Your task to perform on an android device: open app "Fetch Rewards" (install if not already installed) and enter user name: "Westwood@yahoo.com" and password: "qualifying" Image 0: 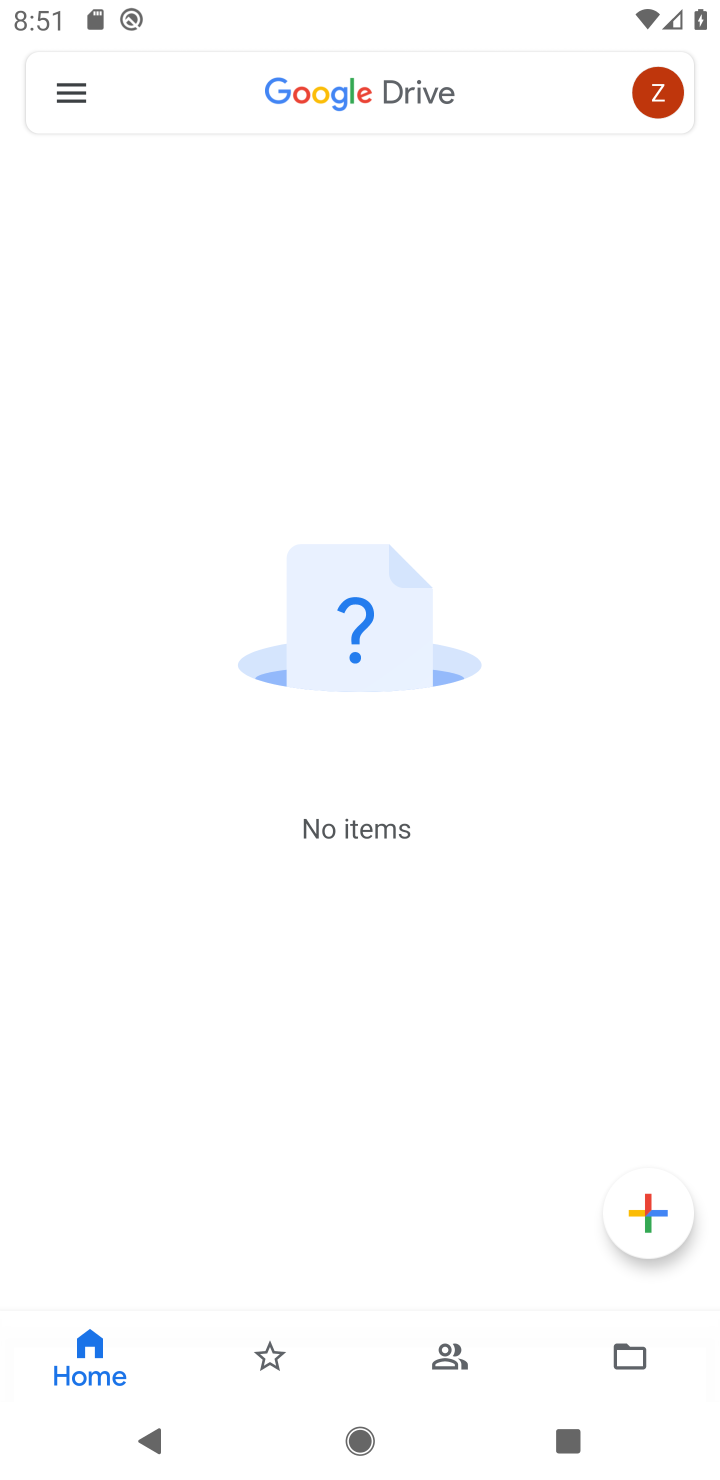
Step 0: press back button
Your task to perform on an android device: open app "Fetch Rewards" (install if not already installed) and enter user name: "Westwood@yahoo.com" and password: "qualifying" Image 1: 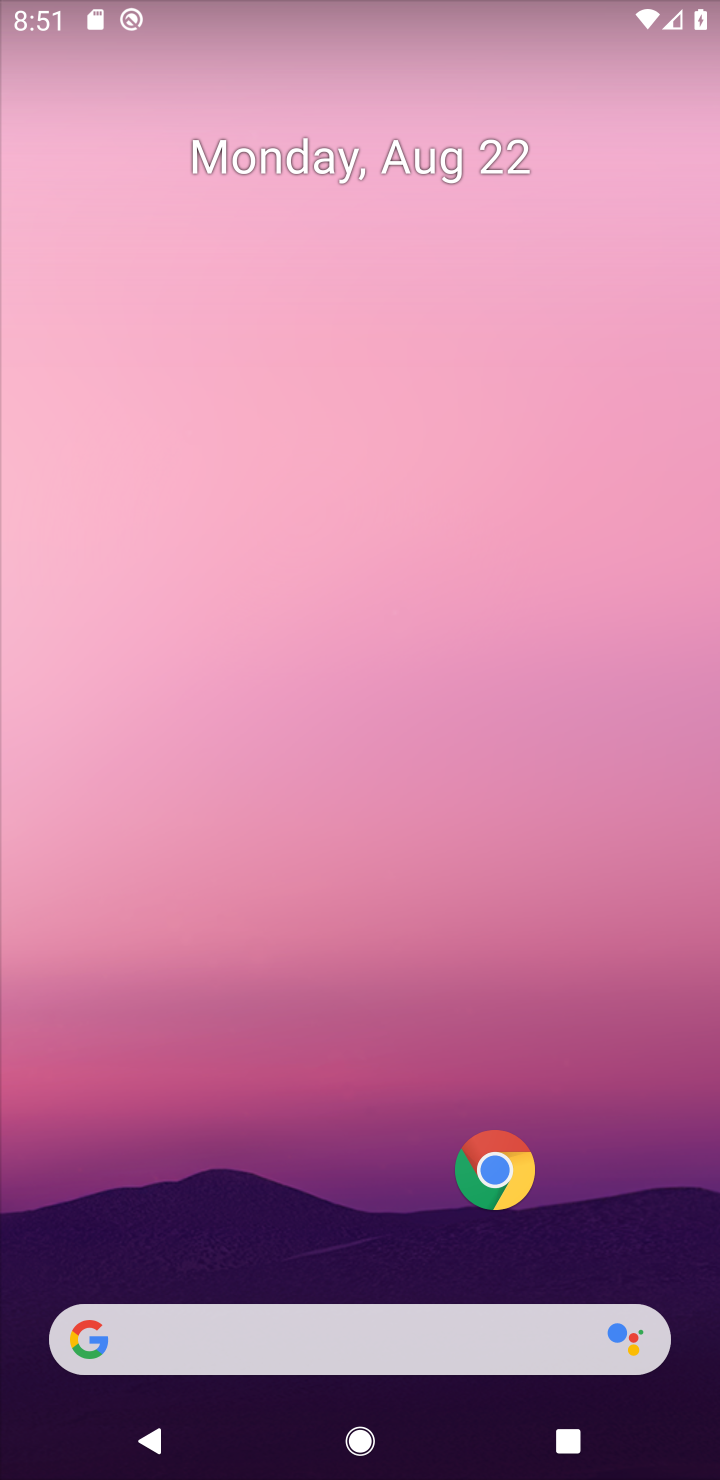
Step 1: drag from (353, 934) to (487, 200)
Your task to perform on an android device: open app "Fetch Rewards" (install if not already installed) and enter user name: "Westwood@yahoo.com" and password: "qualifying" Image 2: 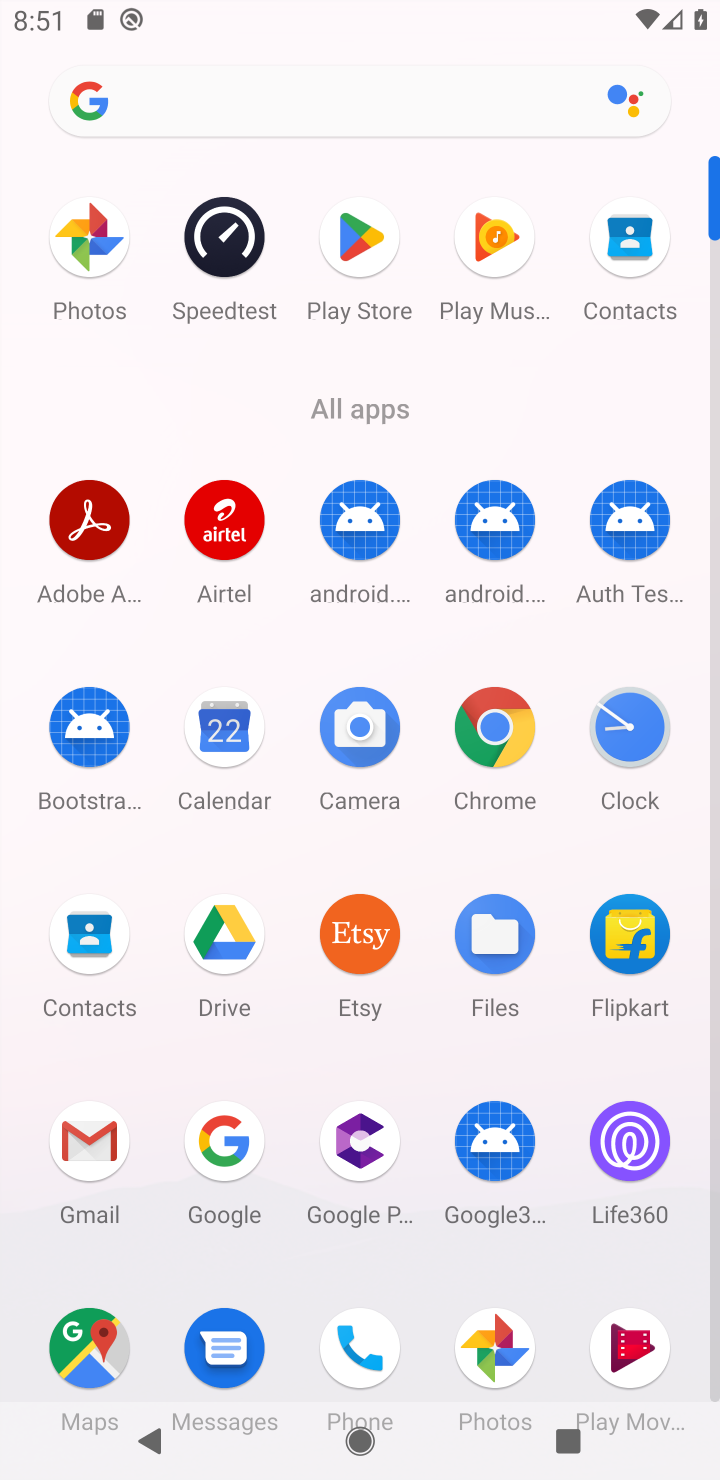
Step 2: click (355, 242)
Your task to perform on an android device: open app "Fetch Rewards" (install if not already installed) and enter user name: "Westwood@yahoo.com" and password: "qualifying" Image 3: 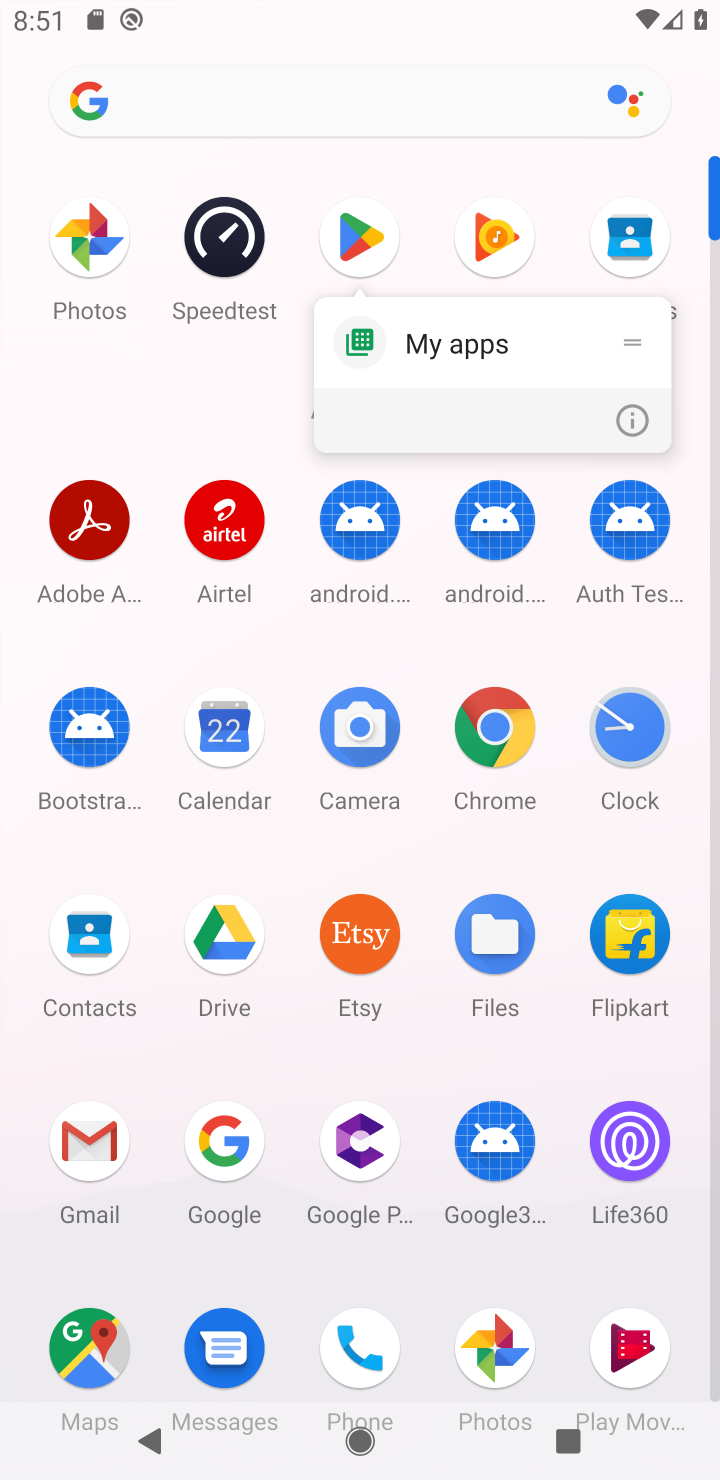
Step 3: click (370, 219)
Your task to perform on an android device: open app "Fetch Rewards" (install if not already installed) and enter user name: "Westwood@yahoo.com" and password: "qualifying" Image 4: 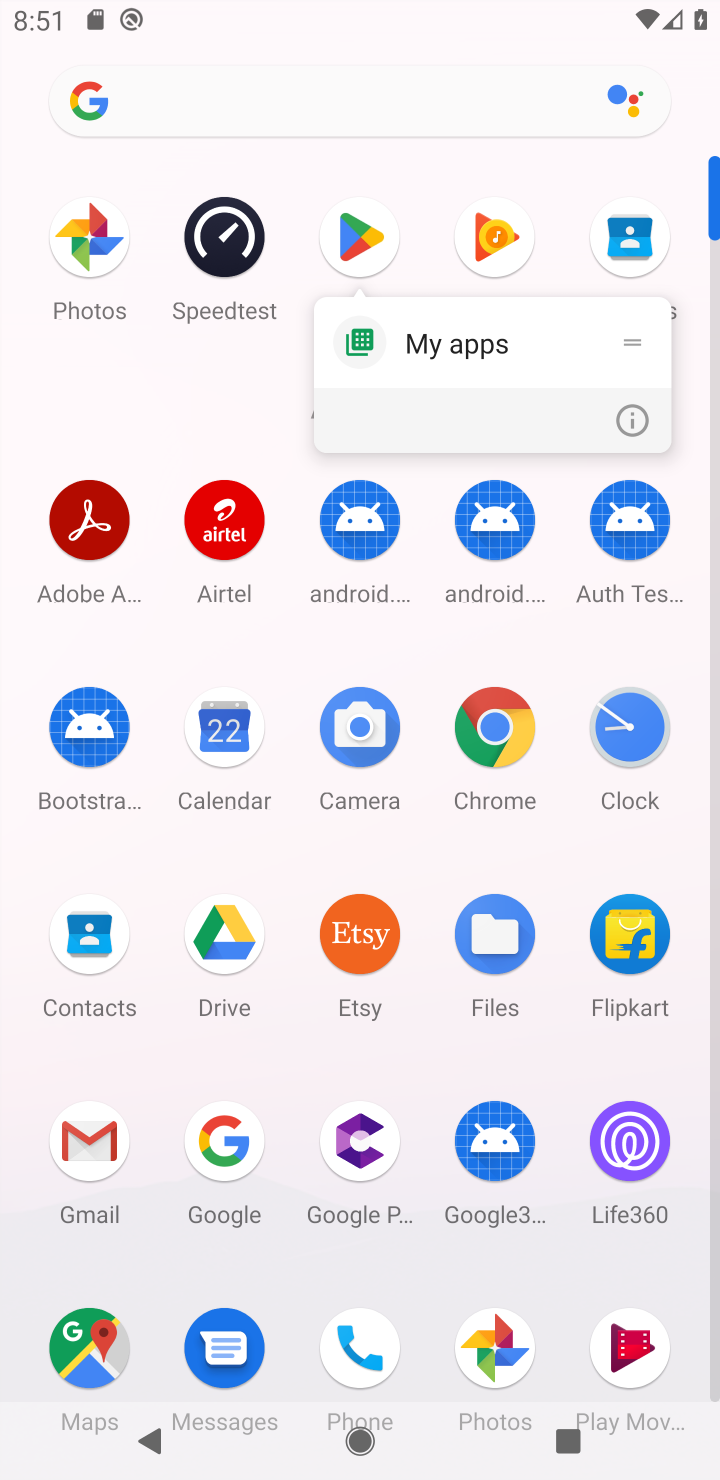
Step 4: click (363, 227)
Your task to perform on an android device: open app "Fetch Rewards" (install if not already installed) and enter user name: "Westwood@yahoo.com" and password: "qualifying" Image 5: 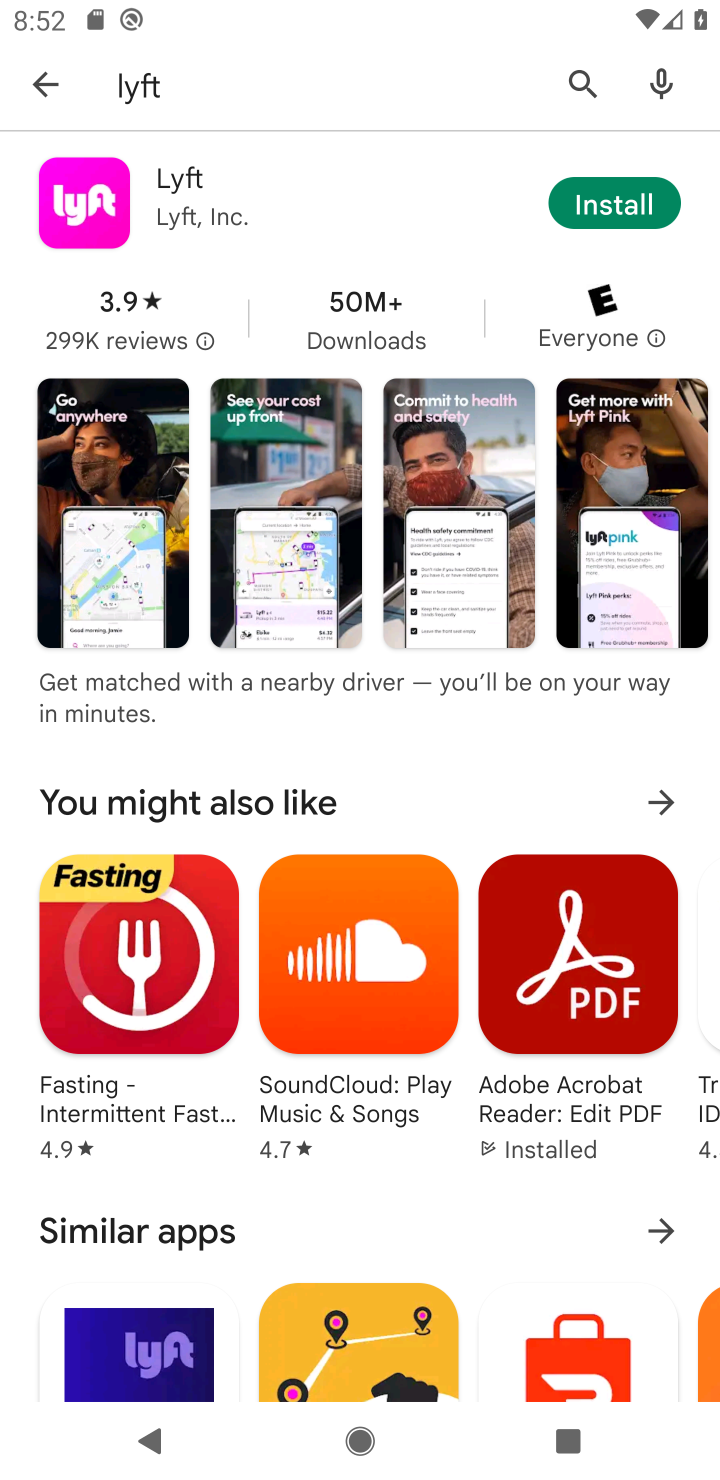
Step 5: click (581, 71)
Your task to perform on an android device: open app "Fetch Rewards" (install if not already installed) and enter user name: "Westwood@yahoo.com" and password: "qualifying" Image 6: 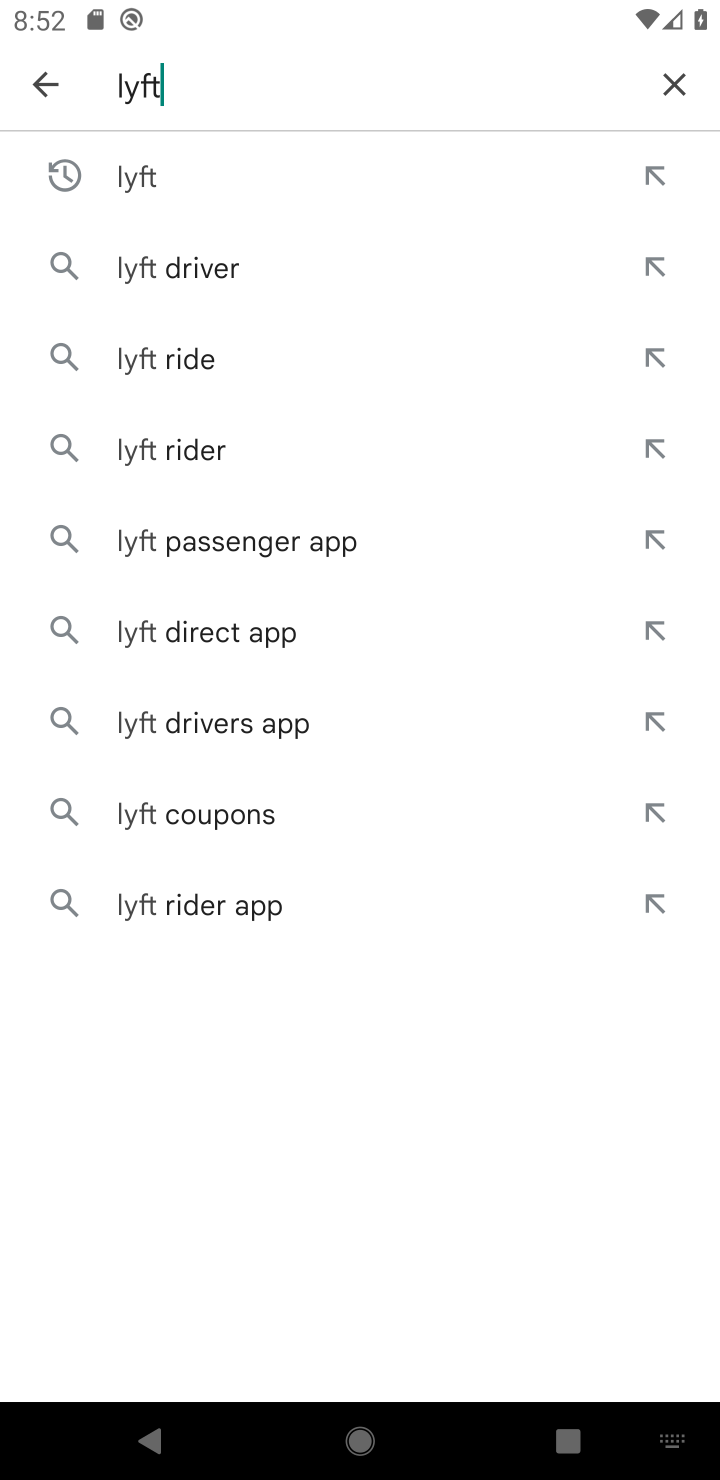
Step 6: click (665, 80)
Your task to perform on an android device: open app "Fetch Rewards" (install if not already installed) and enter user name: "Westwood@yahoo.com" and password: "qualifying" Image 7: 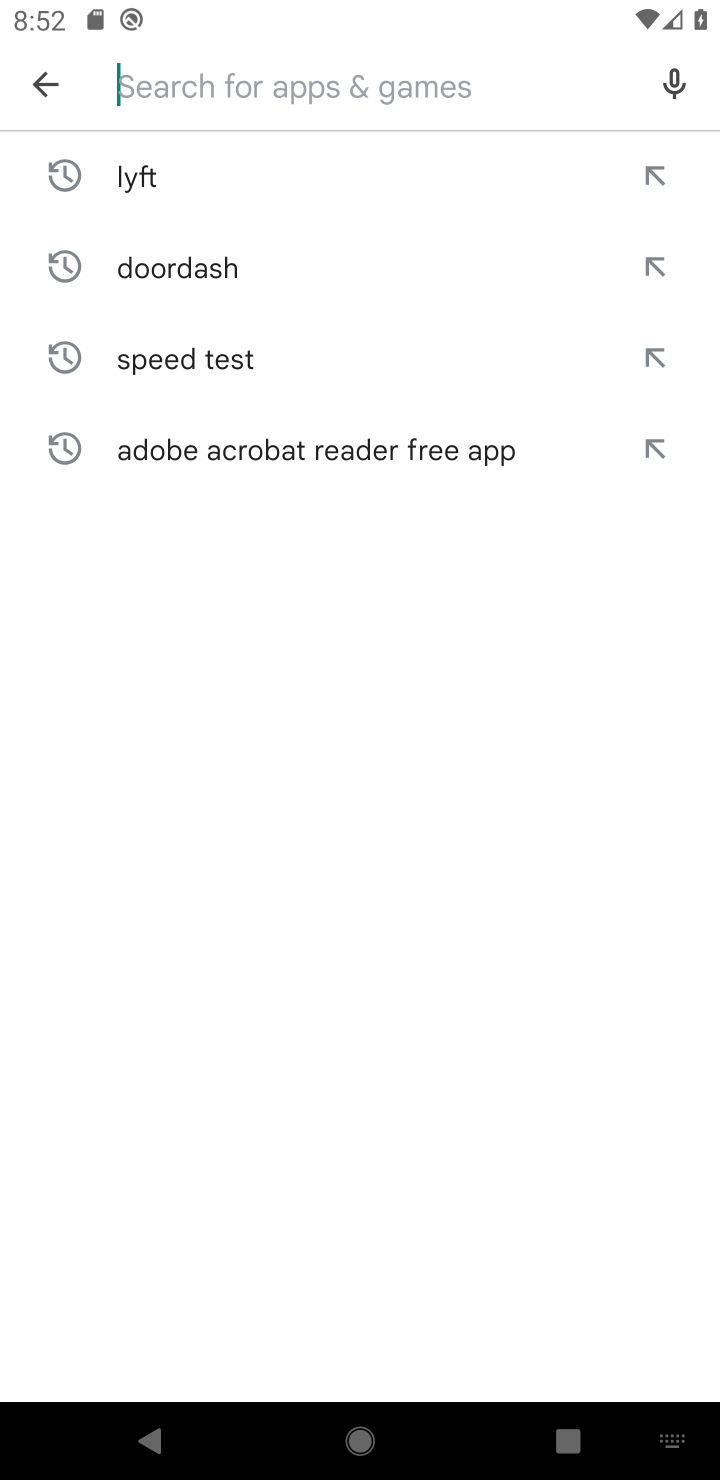
Step 7: type "fetch rewards"
Your task to perform on an android device: open app "Fetch Rewards" (install if not already installed) and enter user name: "Westwood@yahoo.com" and password: "qualifying" Image 8: 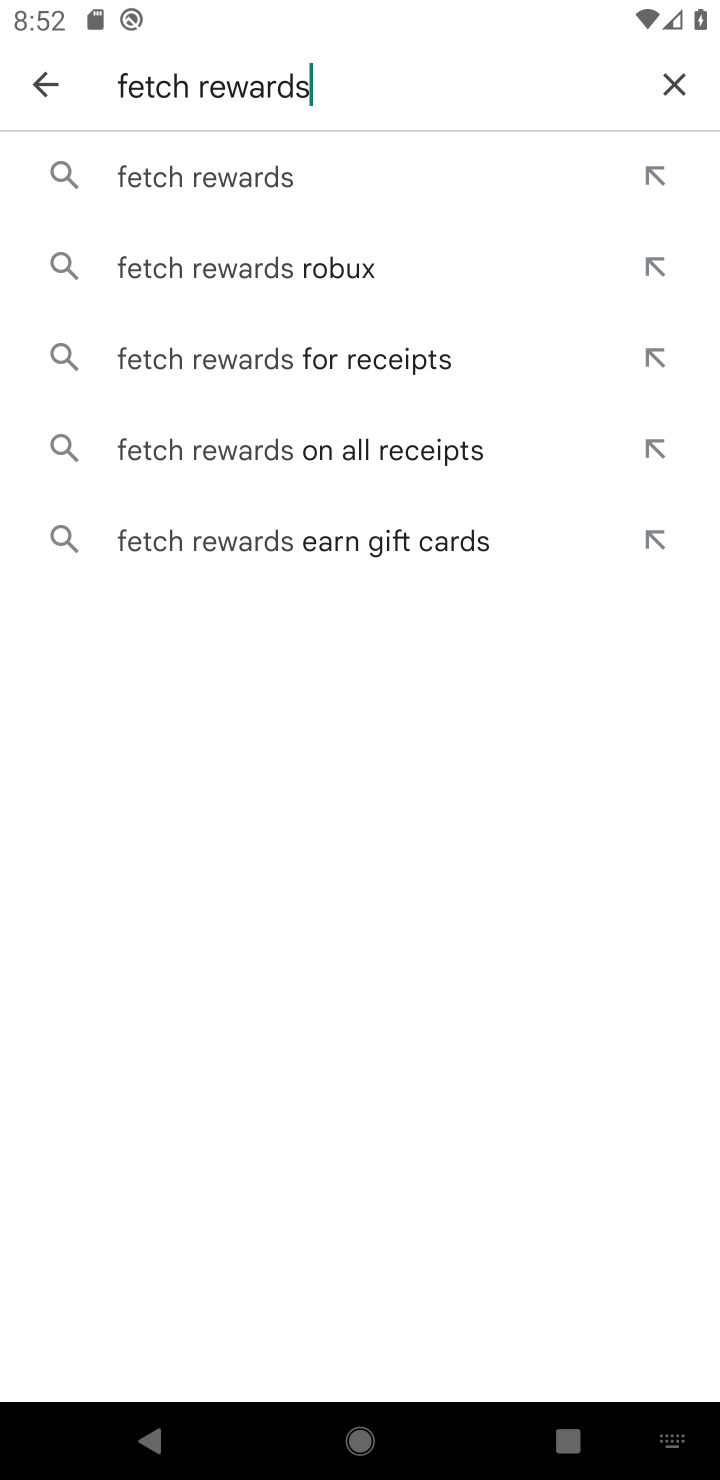
Step 8: click (232, 177)
Your task to perform on an android device: open app "Fetch Rewards" (install if not already installed) and enter user name: "Westwood@yahoo.com" and password: "qualifying" Image 9: 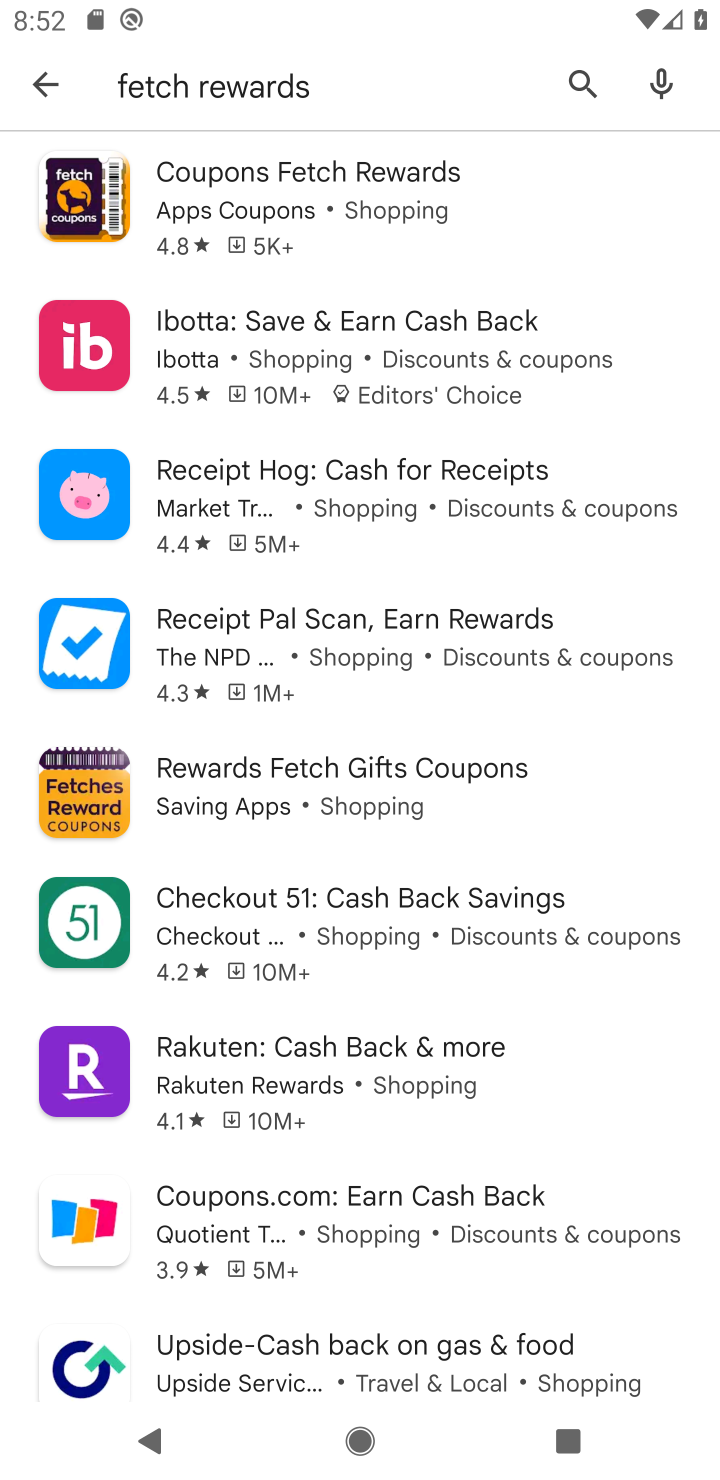
Step 9: task complete